Your task to perform on an android device: Show me productivity apps on the Play Store Image 0: 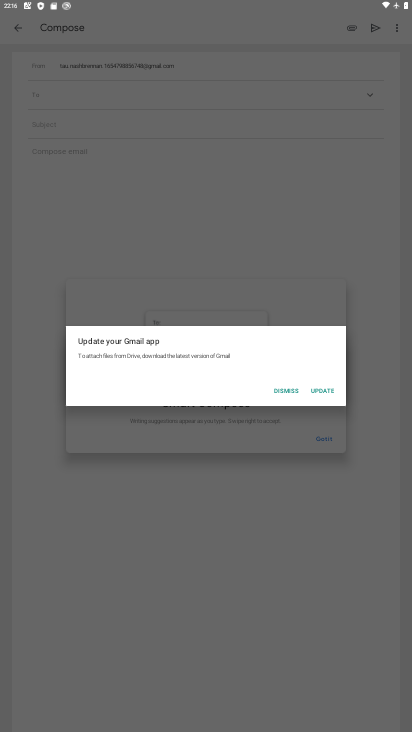
Step 0: press home button
Your task to perform on an android device: Show me productivity apps on the Play Store Image 1: 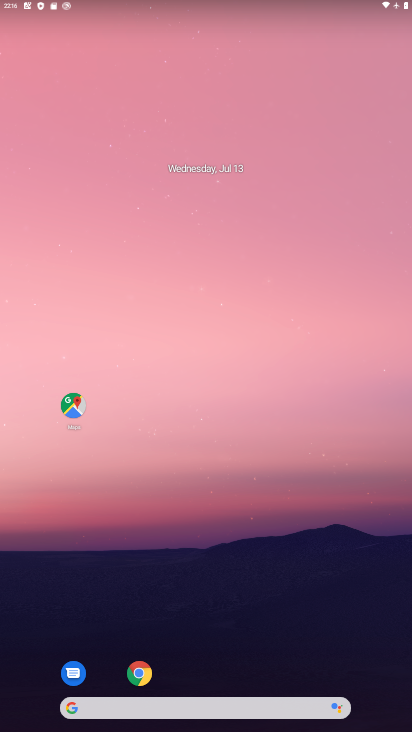
Step 1: drag from (214, 648) to (230, 206)
Your task to perform on an android device: Show me productivity apps on the Play Store Image 2: 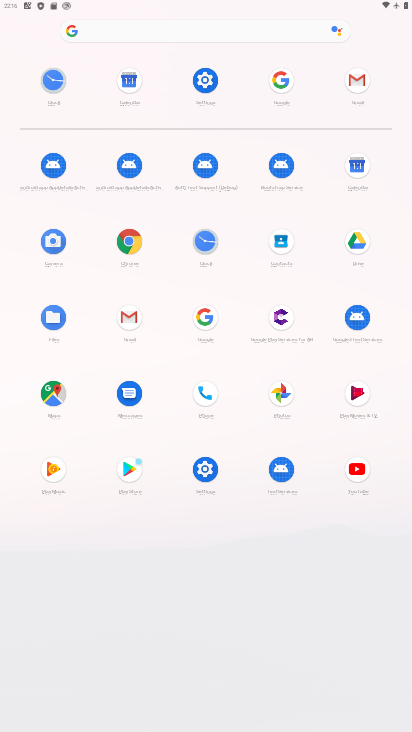
Step 2: click (129, 458)
Your task to perform on an android device: Show me productivity apps on the Play Store Image 3: 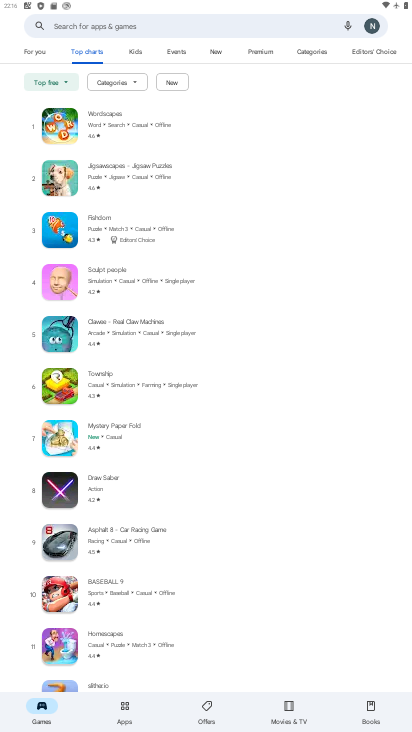
Step 3: click (126, 708)
Your task to perform on an android device: Show me productivity apps on the Play Store Image 4: 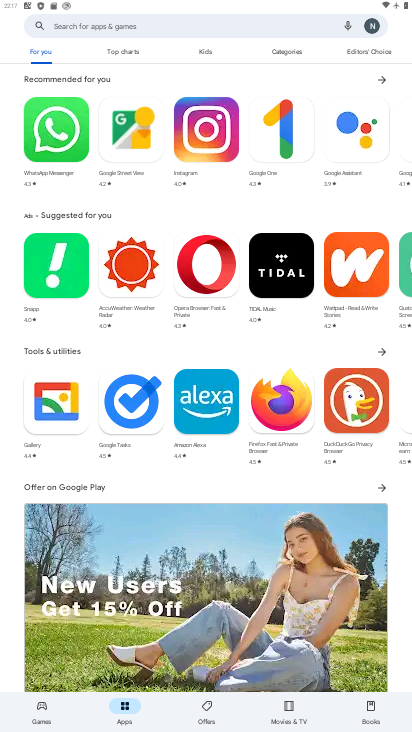
Step 4: click (302, 51)
Your task to perform on an android device: Show me productivity apps on the Play Store Image 5: 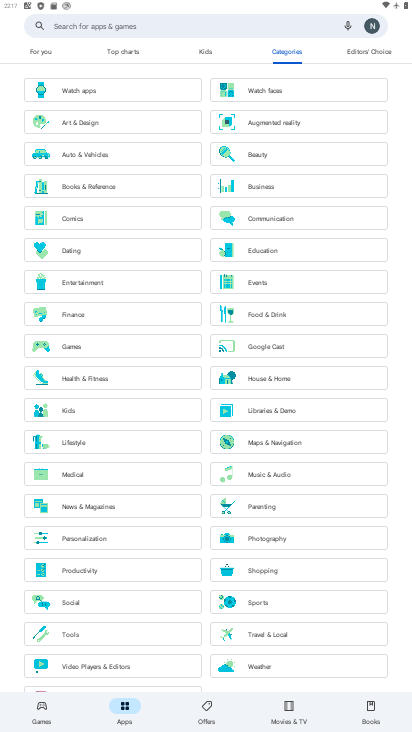
Step 5: click (79, 569)
Your task to perform on an android device: Show me productivity apps on the Play Store Image 6: 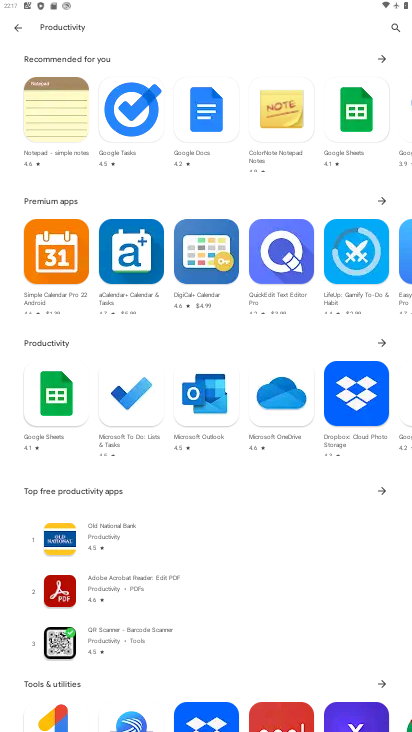
Step 6: task complete